Your task to perform on an android device: turn off translation in the chrome app Image 0: 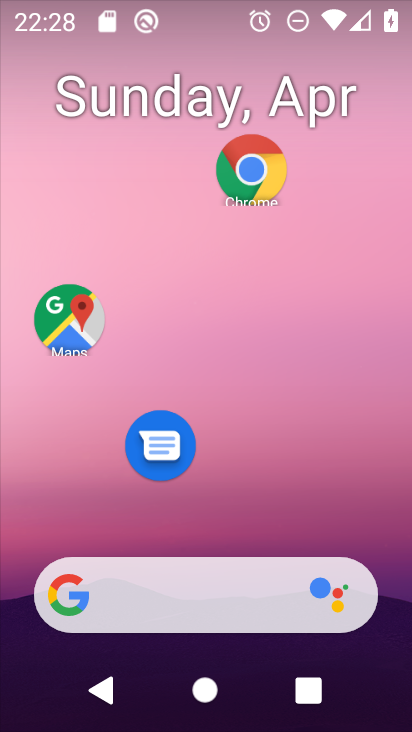
Step 0: click (253, 172)
Your task to perform on an android device: turn off translation in the chrome app Image 1: 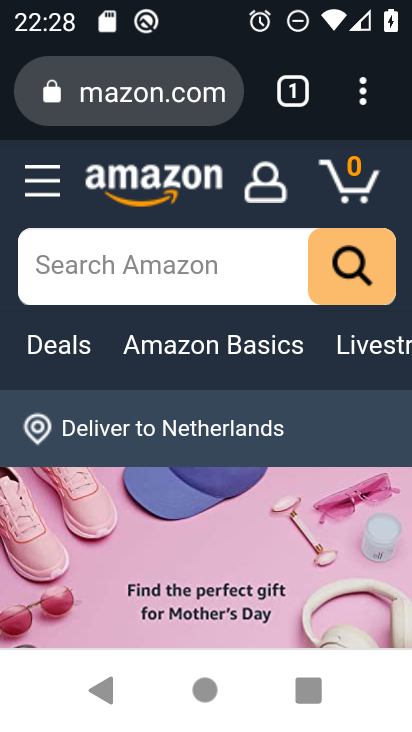
Step 1: click (361, 90)
Your task to perform on an android device: turn off translation in the chrome app Image 2: 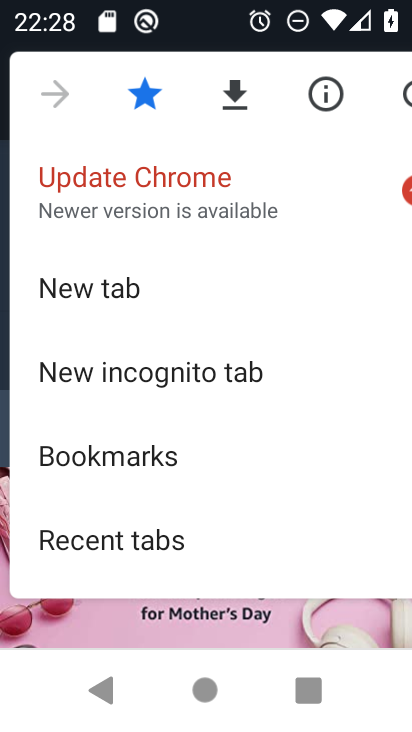
Step 2: drag from (232, 502) to (271, 8)
Your task to perform on an android device: turn off translation in the chrome app Image 3: 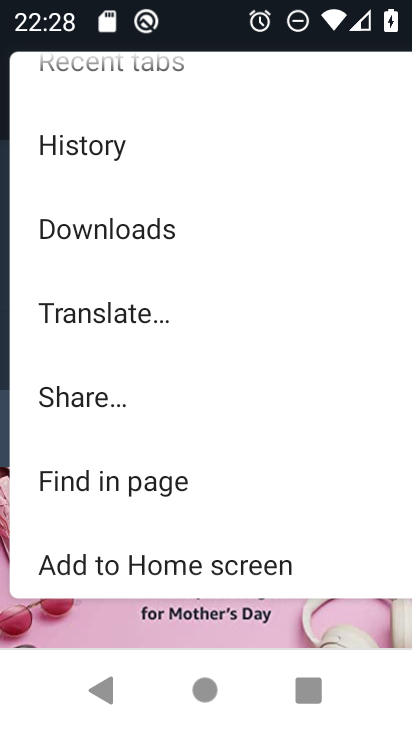
Step 3: drag from (261, 492) to (290, 94)
Your task to perform on an android device: turn off translation in the chrome app Image 4: 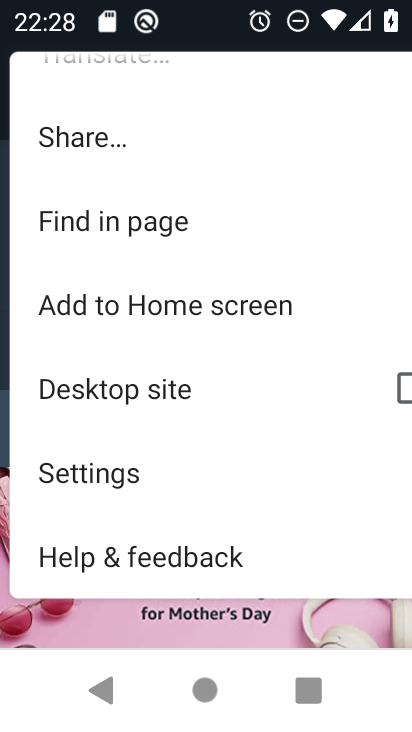
Step 4: click (158, 483)
Your task to perform on an android device: turn off translation in the chrome app Image 5: 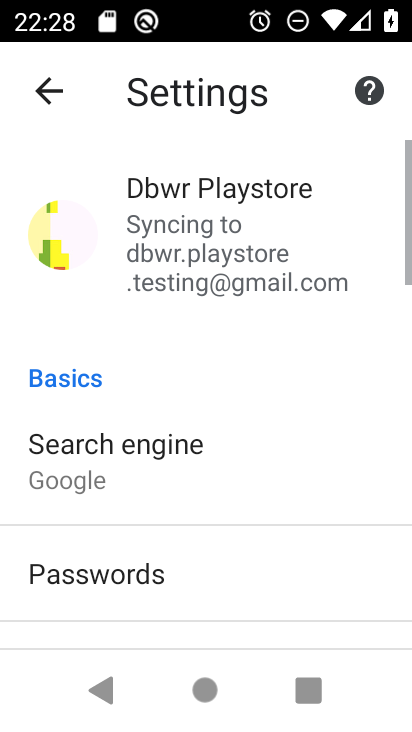
Step 5: drag from (280, 558) to (302, 29)
Your task to perform on an android device: turn off translation in the chrome app Image 6: 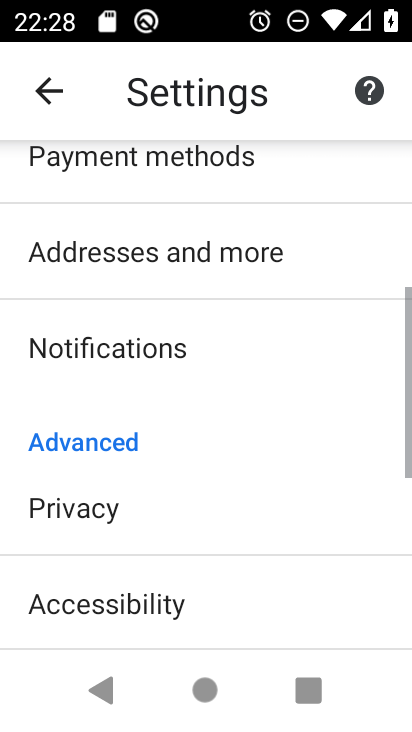
Step 6: drag from (261, 546) to (289, 92)
Your task to perform on an android device: turn off translation in the chrome app Image 7: 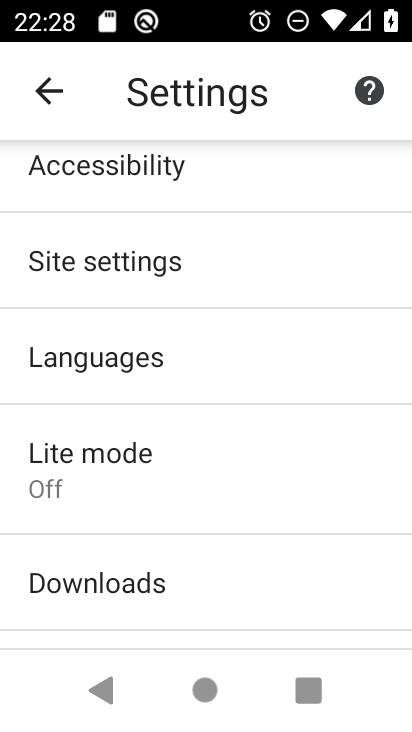
Step 7: click (134, 365)
Your task to perform on an android device: turn off translation in the chrome app Image 8: 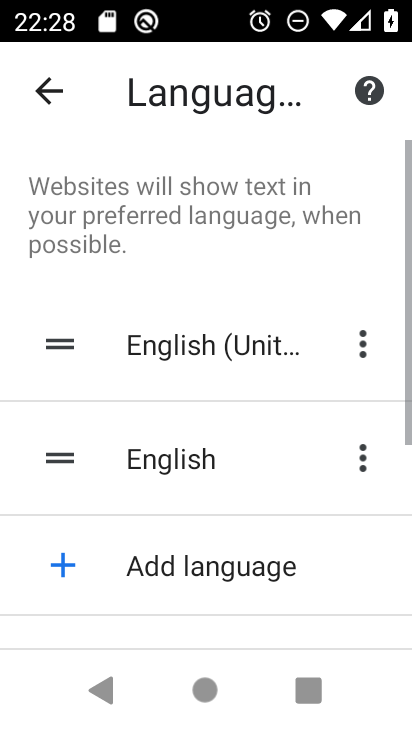
Step 8: task complete